Your task to perform on an android device: Open internet settings Image 0: 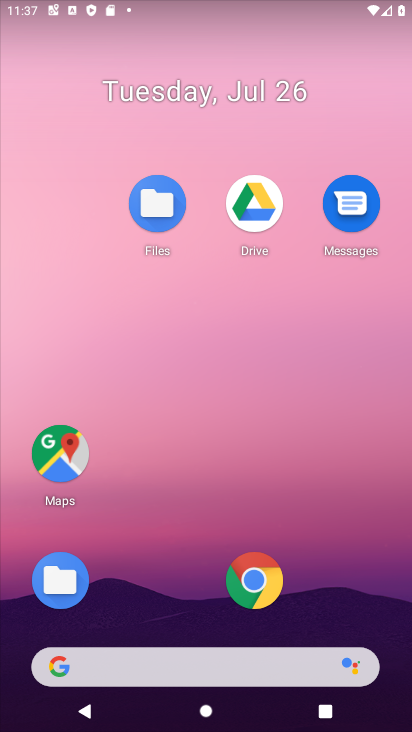
Step 0: drag from (191, 10) to (105, 432)
Your task to perform on an android device: Open internet settings Image 1: 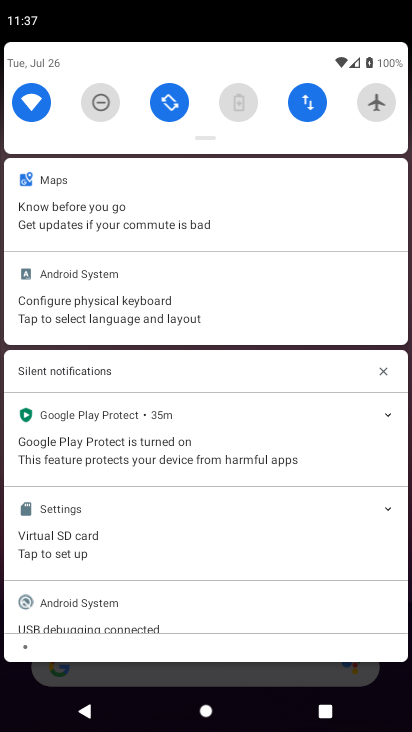
Step 1: click (303, 102)
Your task to perform on an android device: Open internet settings Image 2: 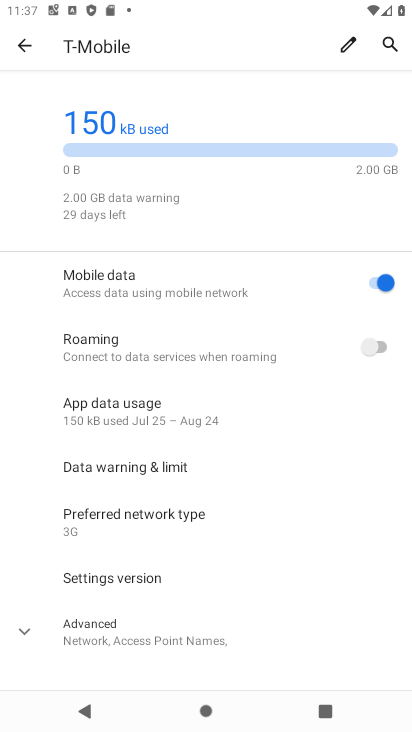
Step 2: task complete